Your task to perform on an android device: see sites visited before in the chrome app Image 0: 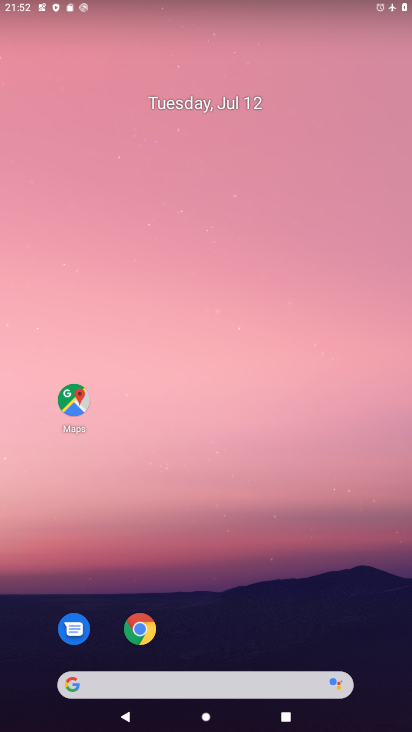
Step 0: drag from (288, 646) to (278, 258)
Your task to perform on an android device: see sites visited before in the chrome app Image 1: 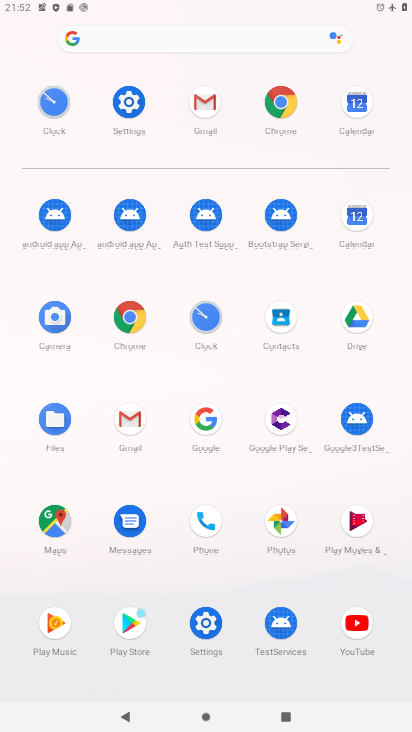
Step 1: click (276, 103)
Your task to perform on an android device: see sites visited before in the chrome app Image 2: 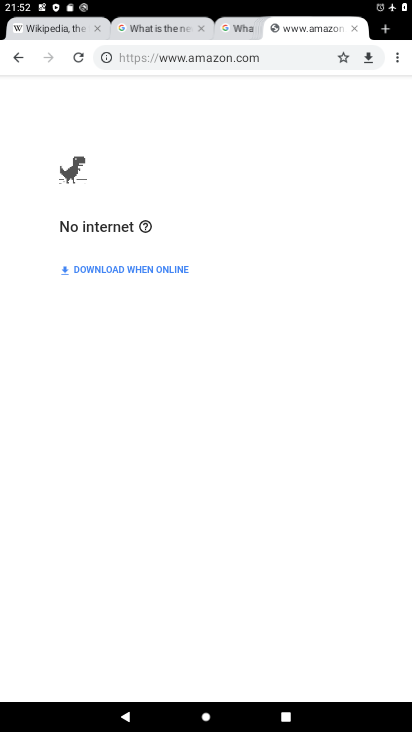
Step 2: click (403, 54)
Your task to perform on an android device: see sites visited before in the chrome app Image 3: 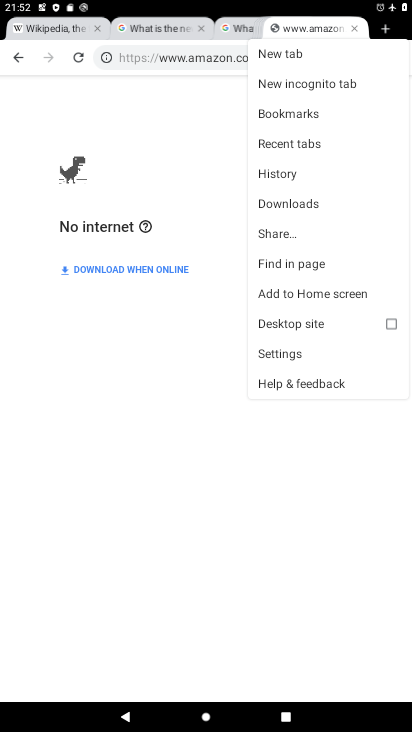
Step 3: click (302, 356)
Your task to perform on an android device: see sites visited before in the chrome app Image 4: 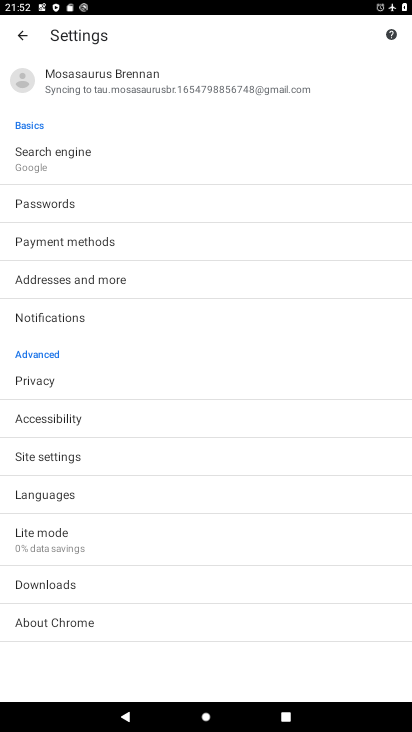
Step 4: click (21, 36)
Your task to perform on an android device: see sites visited before in the chrome app Image 5: 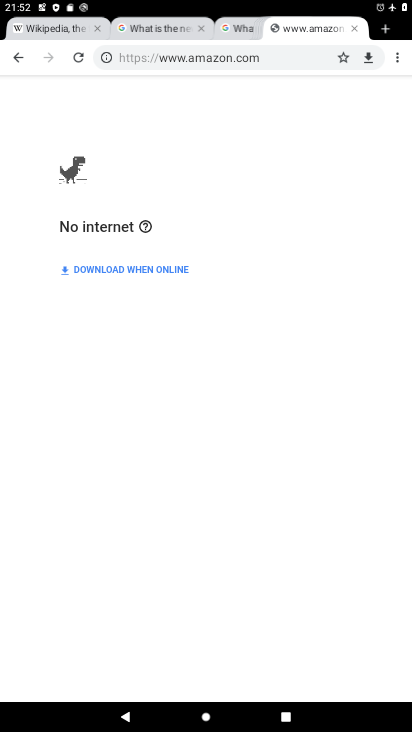
Step 5: click (405, 55)
Your task to perform on an android device: see sites visited before in the chrome app Image 6: 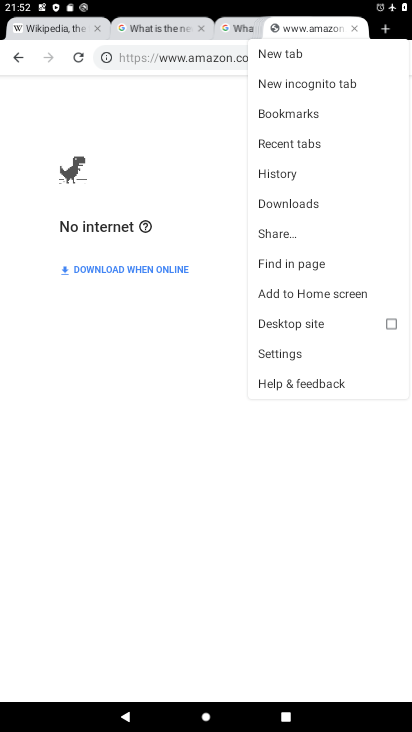
Step 6: click (255, 171)
Your task to perform on an android device: see sites visited before in the chrome app Image 7: 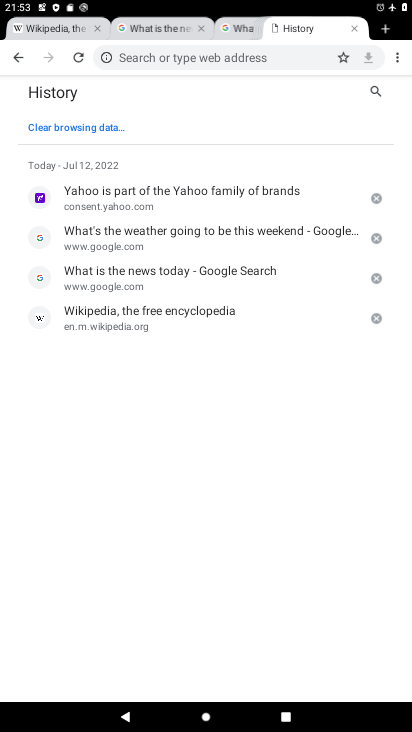
Step 7: task complete